Your task to perform on an android device: Open calendar and show me the first week of next month Image 0: 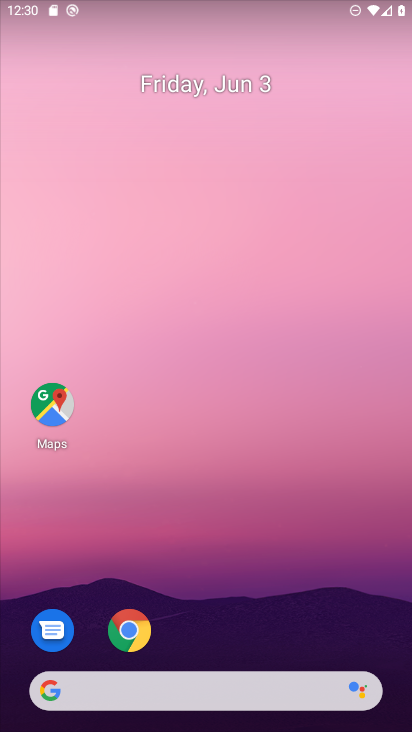
Step 0: drag from (242, 627) to (154, 146)
Your task to perform on an android device: Open calendar and show me the first week of next month Image 1: 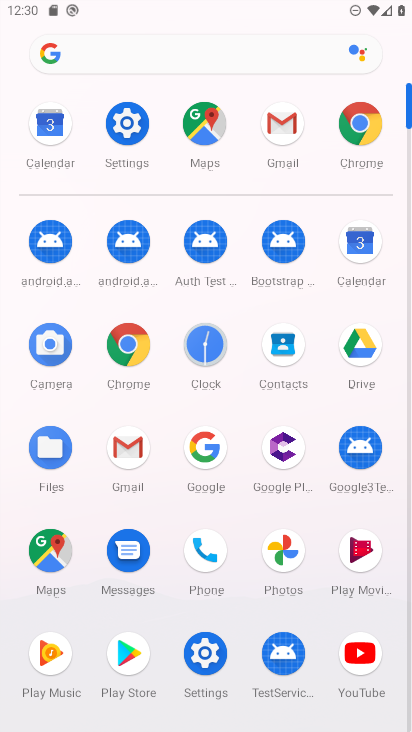
Step 1: click (357, 254)
Your task to perform on an android device: Open calendar and show me the first week of next month Image 2: 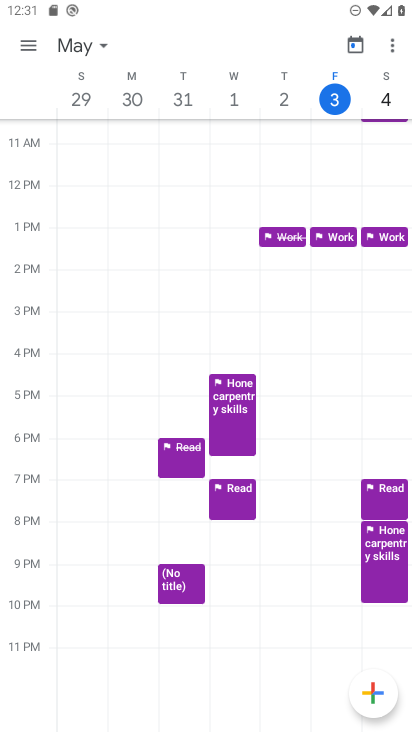
Step 2: click (102, 47)
Your task to perform on an android device: Open calendar and show me the first week of next month Image 3: 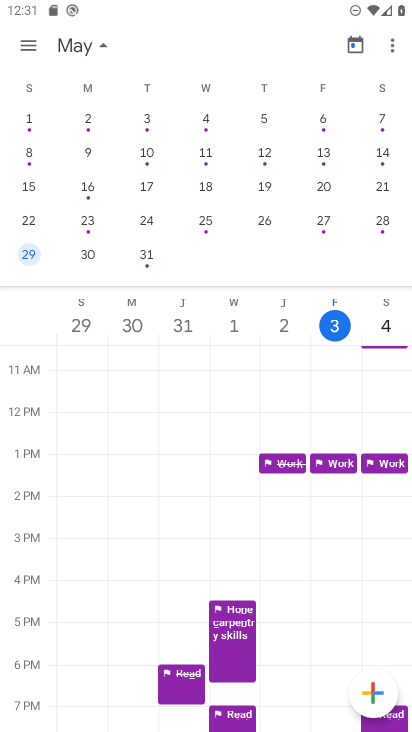
Step 3: drag from (383, 165) to (41, 153)
Your task to perform on an android device: Open calendar and show me the first week of next month Image 4: 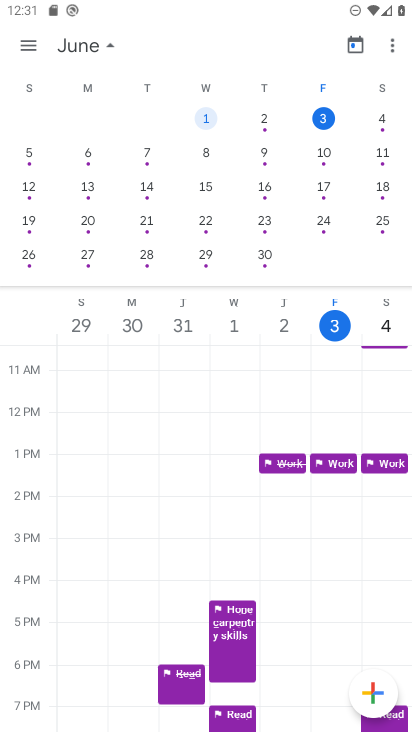
Step 4: click (311, 115)
Your task to perform on an android device: Open calendar and show me the first week of next month Image 5: 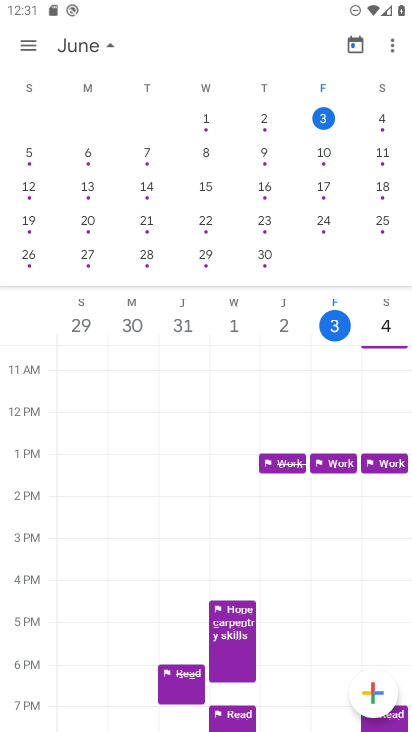
Step 5: task complete